Your task to perform on an android device: Go to eBay Image 0: 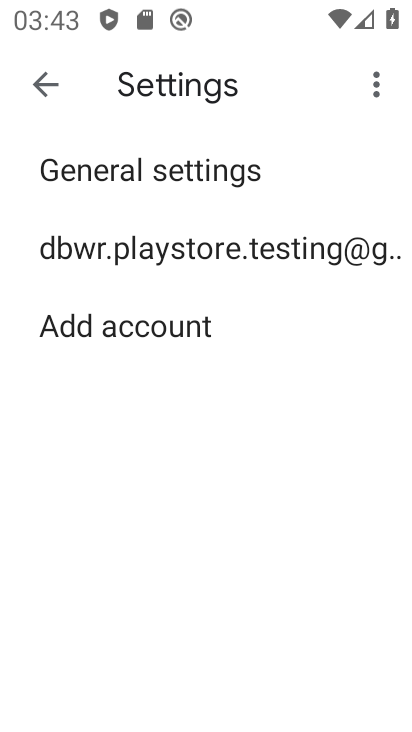
Step 0: press back button
Your task to perform on an android device: Go to eBay Image 1: 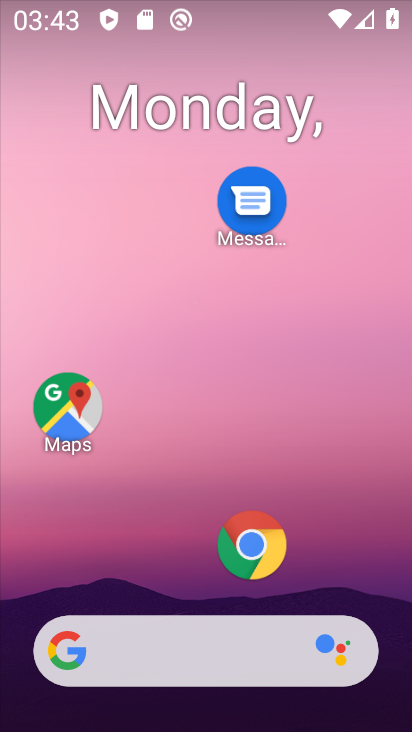
Step 1: click (170, 656)
Your task to perform on an android device: Go to eBay Image 2: 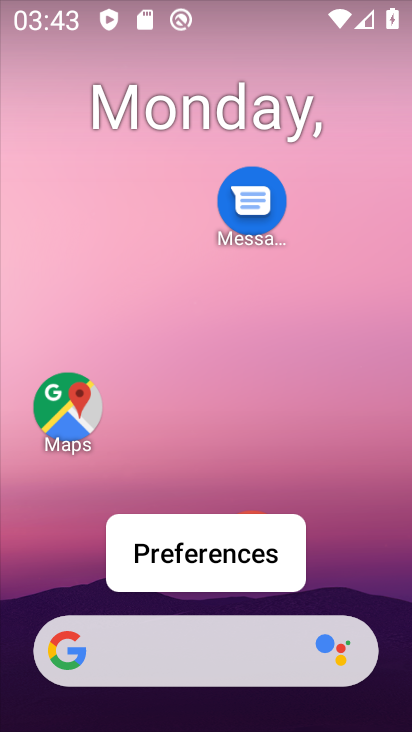
Step 2: click (171, 656)
Your task to perform on an android device: Go to eBay Image 3: 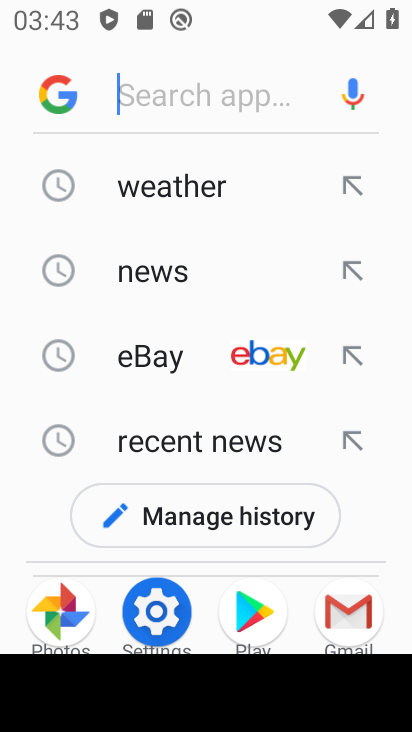
Step 3: click (136, 339)
Your task to perform on an android device: Go to eBay Image 4: 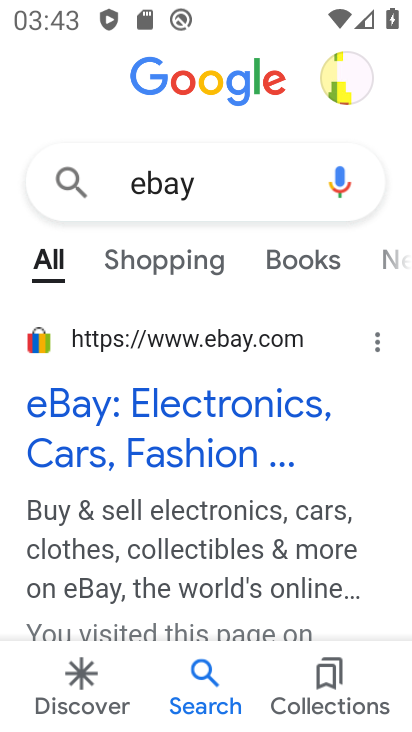
Step 4: click (114, 428)
Your task to perform on an android device: Go to eBay Image 5: 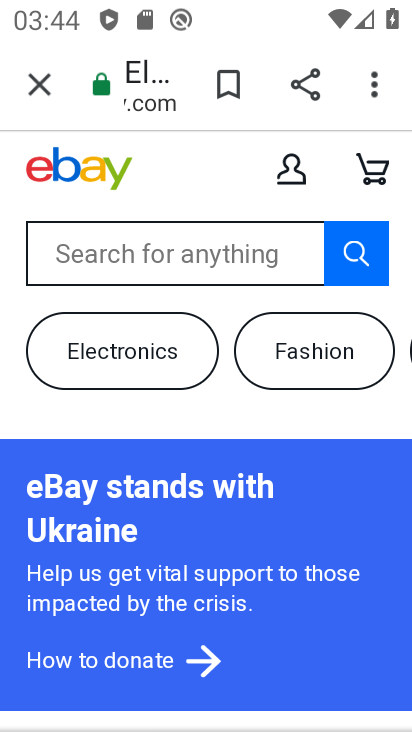
Step 5: task complete